Your task to perform on an android device: Go to display settings Image 0: 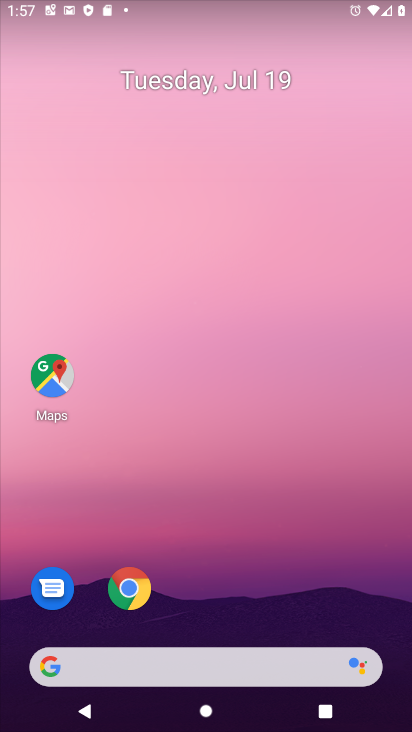
Step 0: drag from (385, 612) to (307, 5)
Your task to perform on an android device: Go to display settings Image 1: 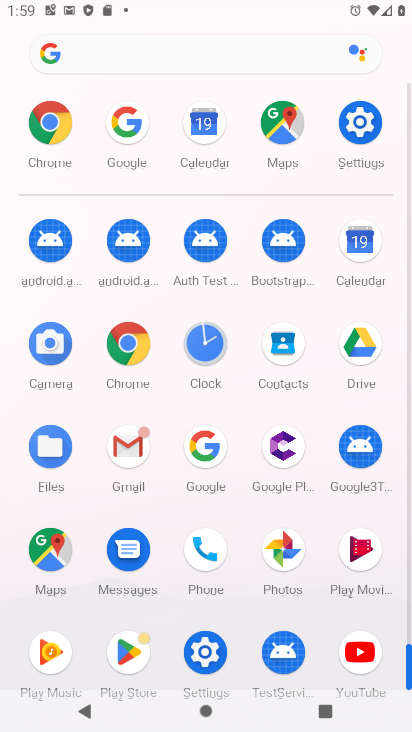
Step 1: click (210, 660)
Your task to perform on an android device: Go to display settings Image 2: 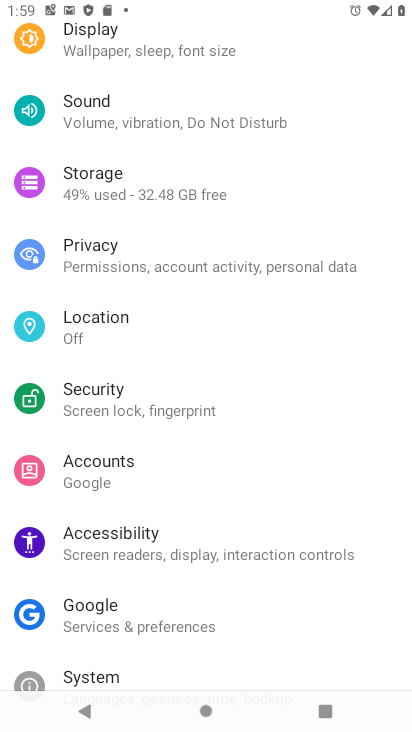
Step 2: click (119, 44)
Your task to perform on an android device: Go to display settings Image 3: 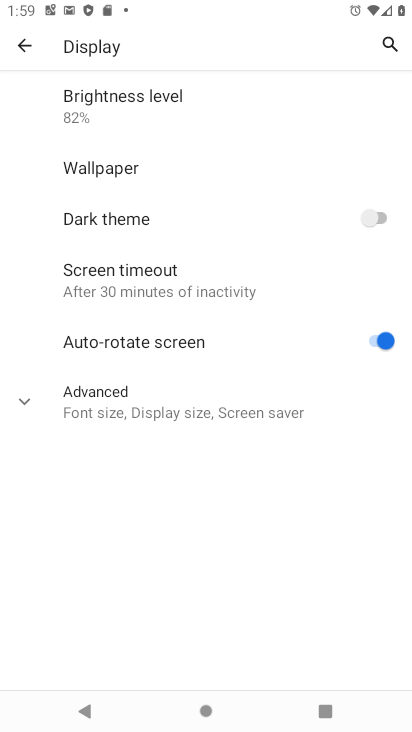
Step 3: task complete